Your task to perform on an android device: Go to Wikipedia Image 0: 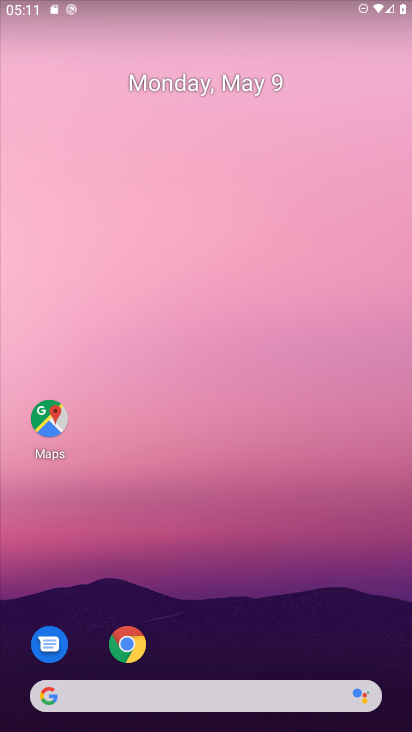
Step 0: click (126, 644)
Your task to perform on an android device: Go to Wikipedia Image 1: 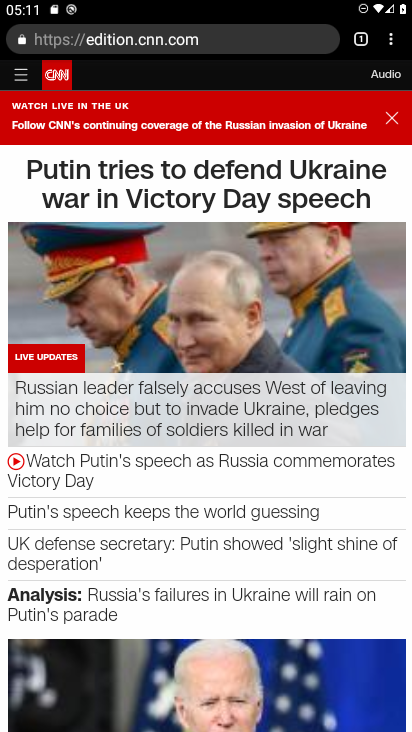
Step 1: click (361, 40)
Your task to perform on an android device: Go to Wikipedia Image 2: 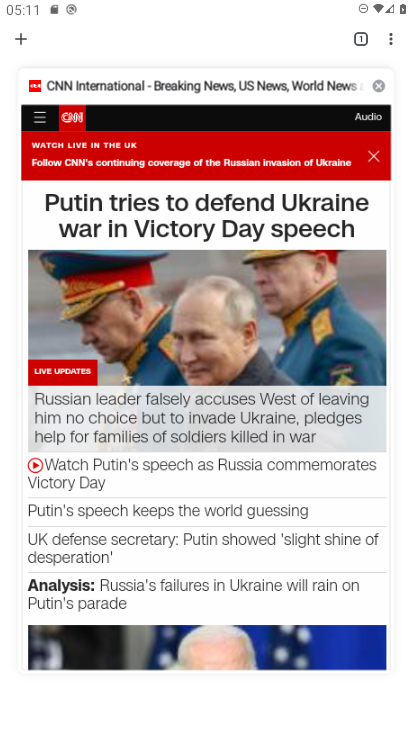
Step 2: click (388, 102)
Your task to perform on an android device: Go to Wikipedia Image 3: 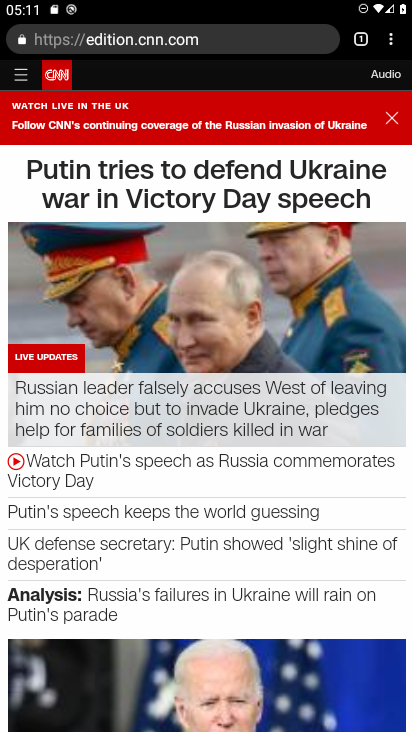
Step 3: click (365, 43)
Your task to perform on an android device: Go to Wikipedia Image 4: 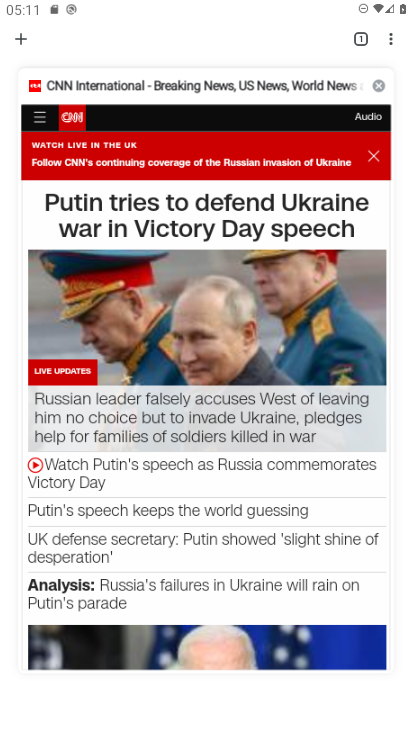
Step 4: click (378, 84)
Your task to perform on an android device: Go to Wikipedia Image 5: 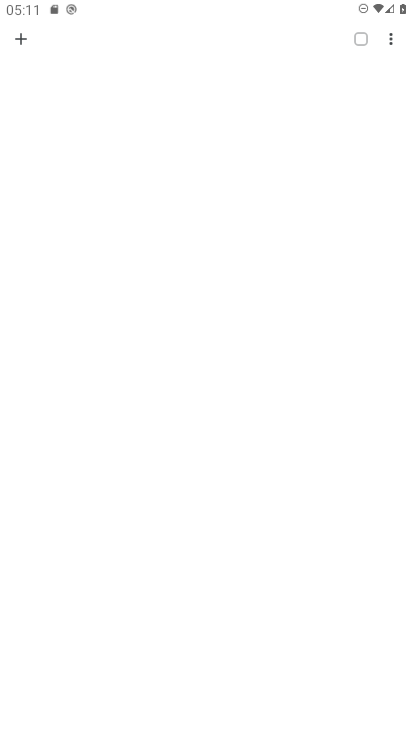
Step 5: click (19, 30)
Your task to perform on an android device: Go to Wikipedia Image 6: 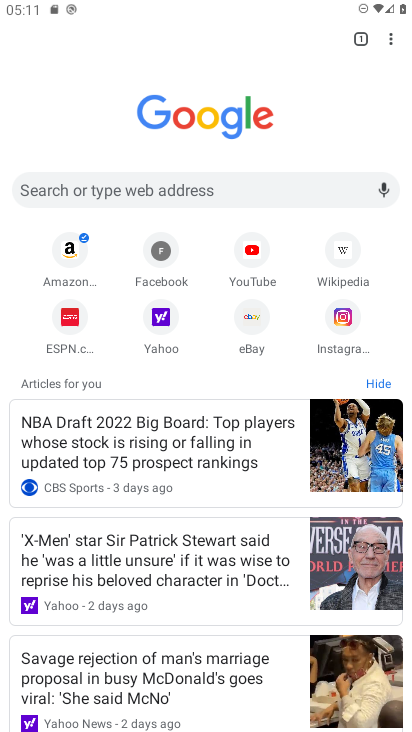
Step 6: click (347, 254)
Your task to perform on an android device: Go to Wikipedia Image 7: 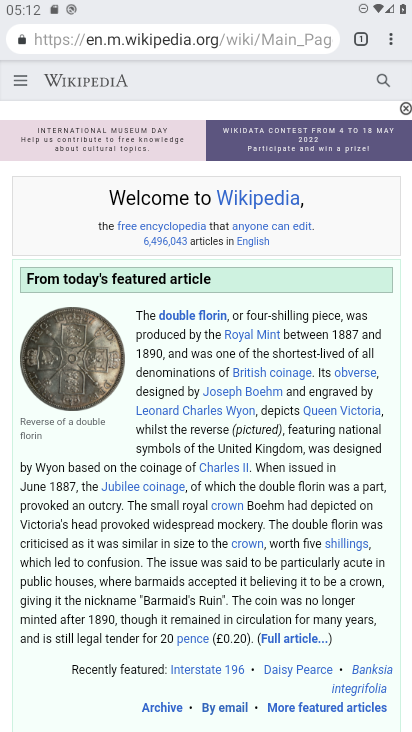
Step 7: task complete